Your task to perform on an android device: turn notification dots on Image 0: 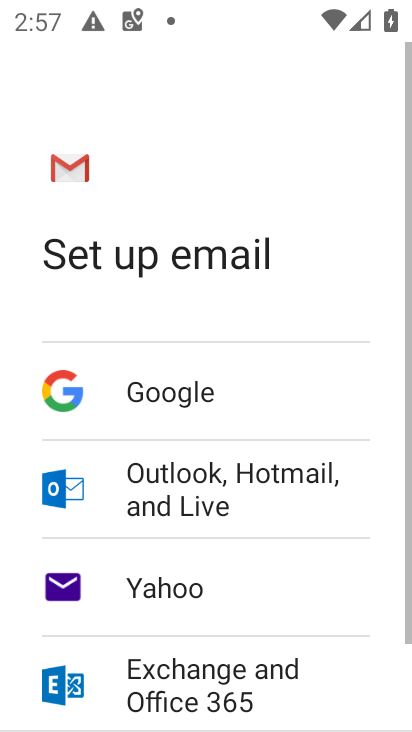
Step 0: press home button
Your task to perform on an android device: turn notification dots on Image 1: 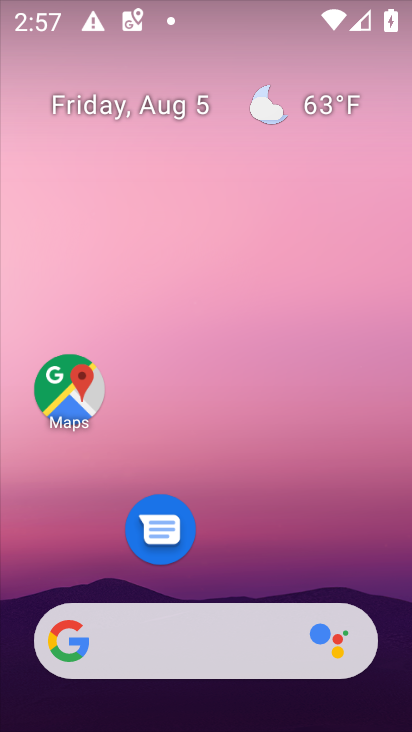
Step 1: drag from (167, 633) to (329, 39)
Your task to perform on an android device: turn notification dots on Image 2: 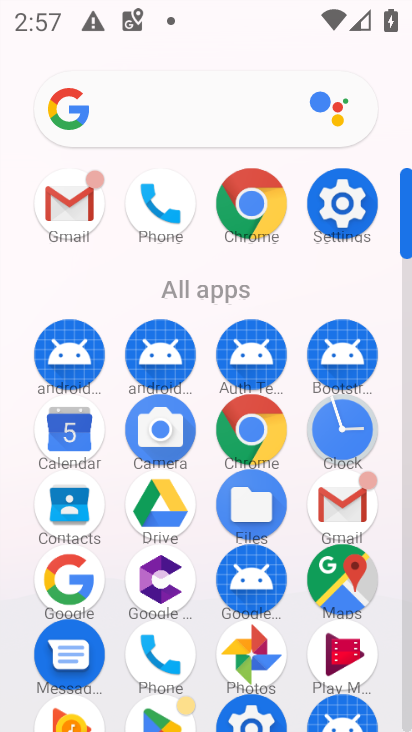
Step 2: click (361, 193)
Your task to perform on an android device: turn notification dots on Image 3: 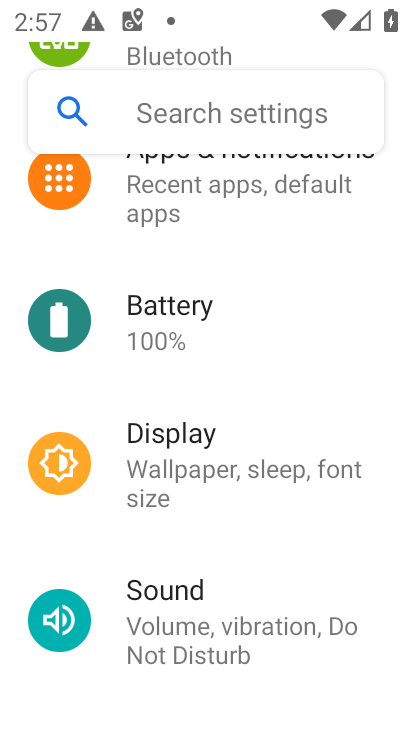
Step 3: drag from (283, 688) to (332, 157)
Your task to perform on an android device: turn notification dots on Image 4: 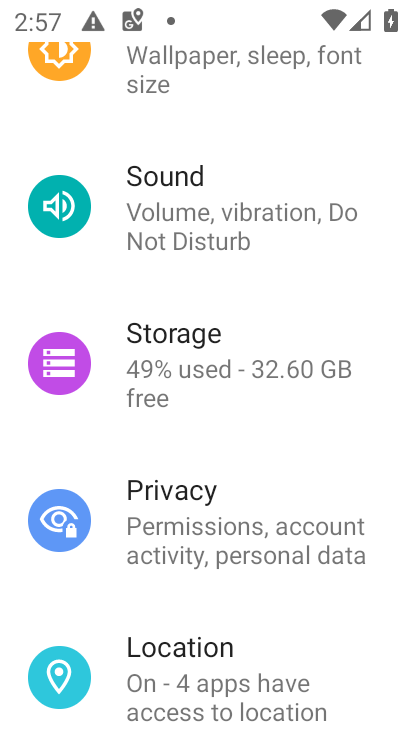
Step 4: drag from (316, 657) to (343, 52)
Your task to perform on an android device: turn notification dots on Image 5: 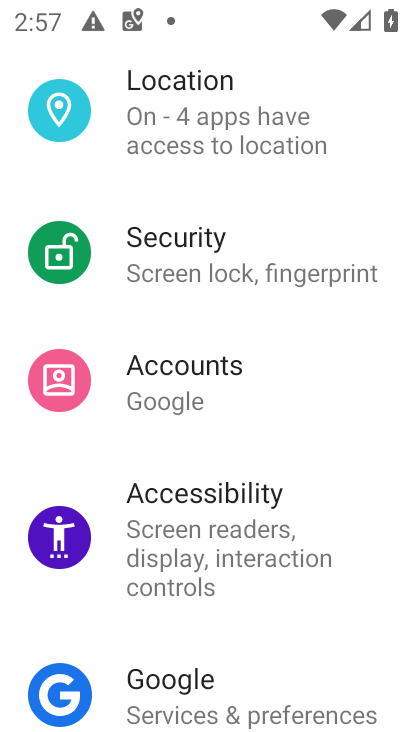
Step 5: drag from (242, 666) to (289, 2)
Your task to perform on an android device: turn notification dots on Image 6: 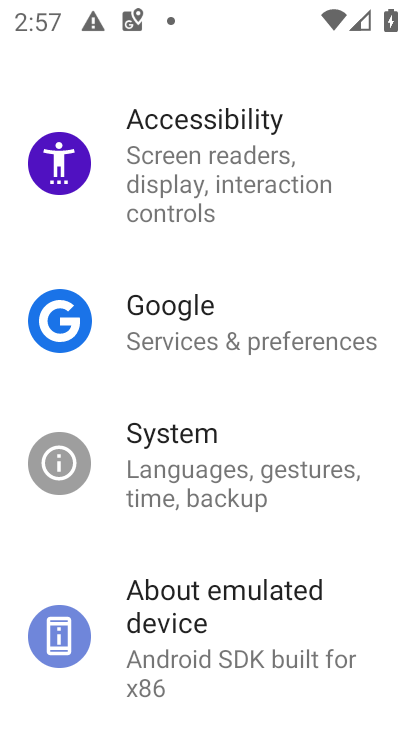
Step 6: drag from (256, 615) to (294, 8)
Your task to perform on an android device: turn notification dots on Image 7: 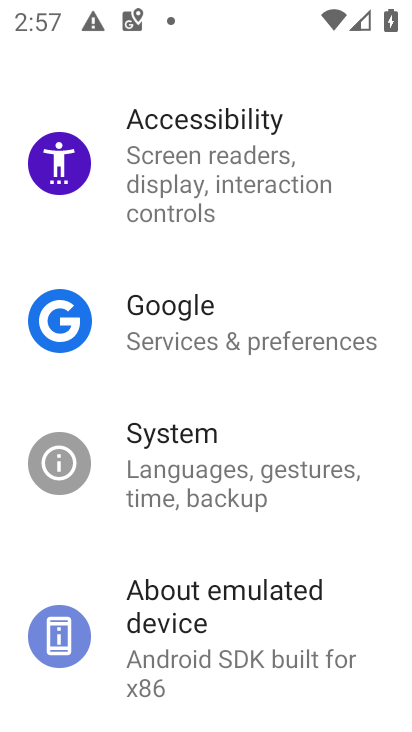
Step 7: drag from (359, 112) to (338, 687)
Your task to perform on an android device: turn notification dots on Image 8: 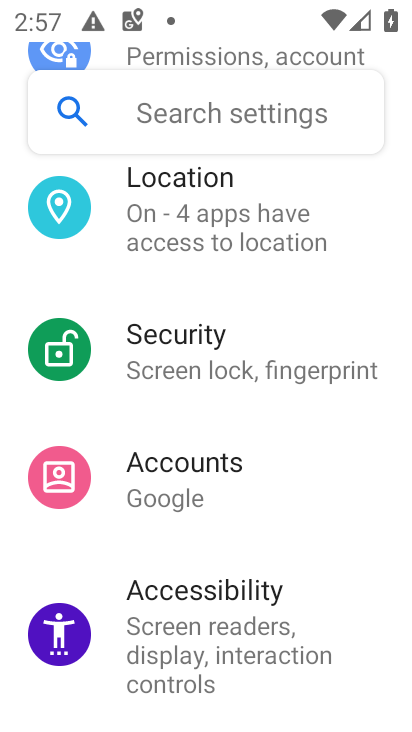
Step 8: drag from (320, 174) to (306, 700)
Your task to perform on an android device: turn notification dots on Image 9: 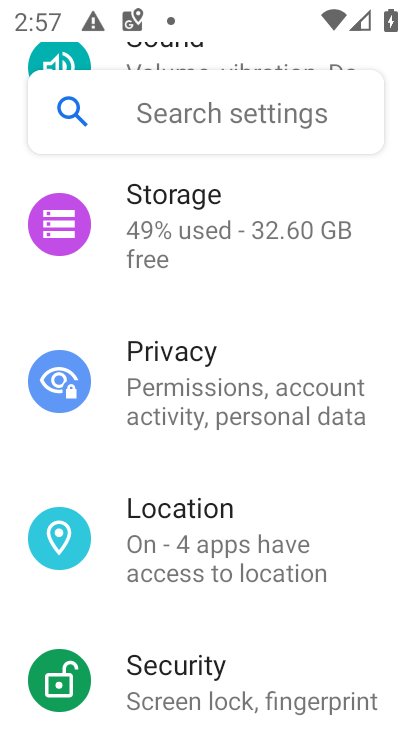
Step 9: drag from (320, 211) to (386, 706)
Your task to perform on an android device: turn notification dots on Image 10: 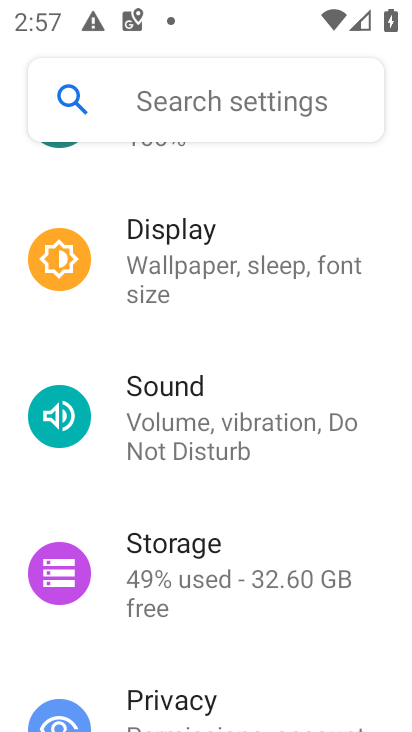
Step 10: drag from (308, 234) to (315, 676)
Your task to perform on an android device: turn notification dots on Image 11: 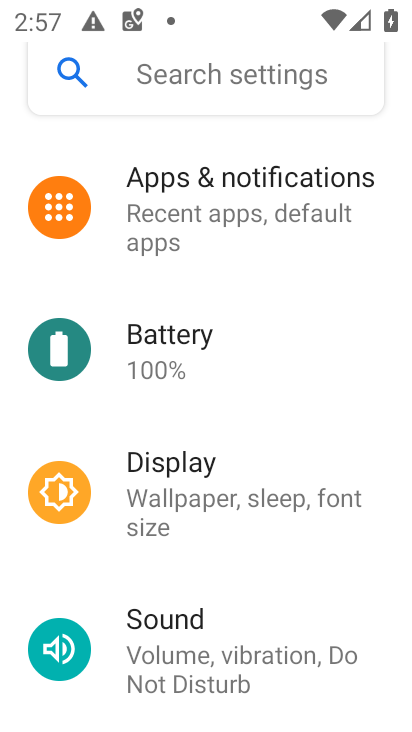
Step 11: click (277, 194)
Your task to perform on an android device: turn notification dots on Image 12: 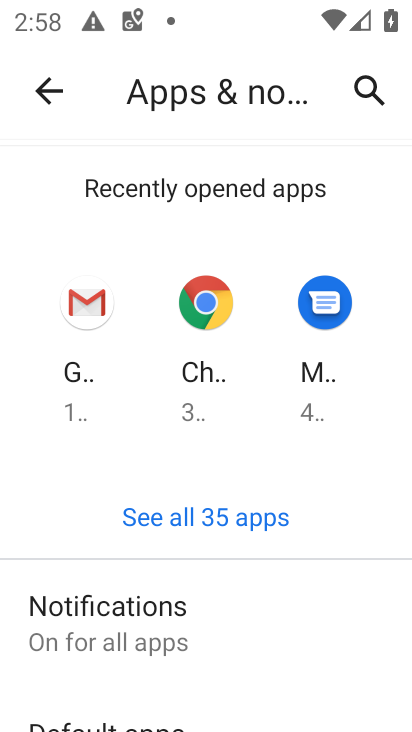
Step 12: click (223, 626)
Your task to perform on an android device: turn notification dots on Image 13: 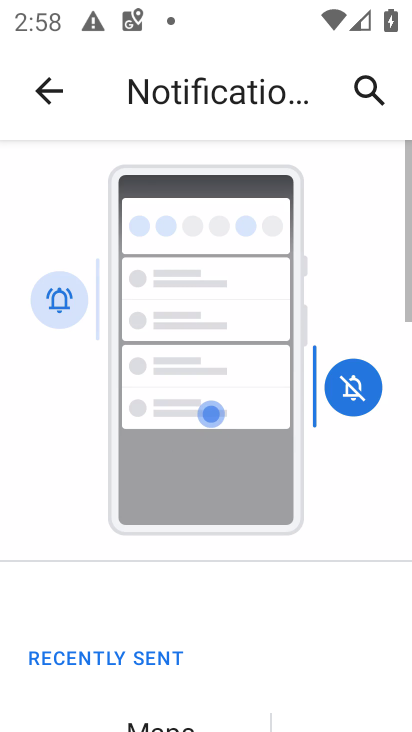
Step 13: drag from (235, 617) to (284, 49)
Your task to perform on an android device: turn notification dots on Image 14: 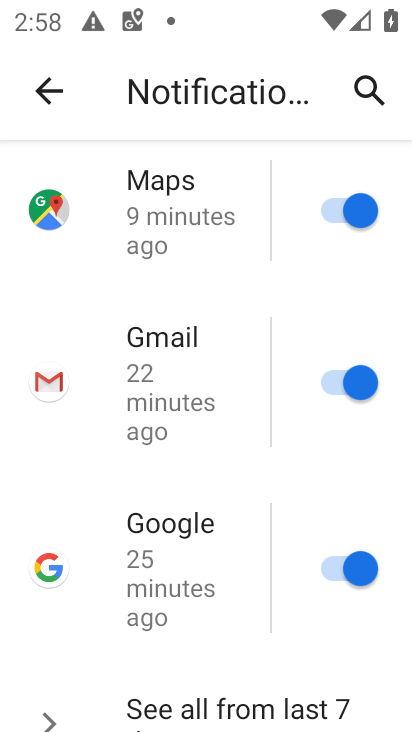
Step 14: drag from (238, 560) to (308, 17)
Your task to perform on an android device: turn notification dots on Image 15: 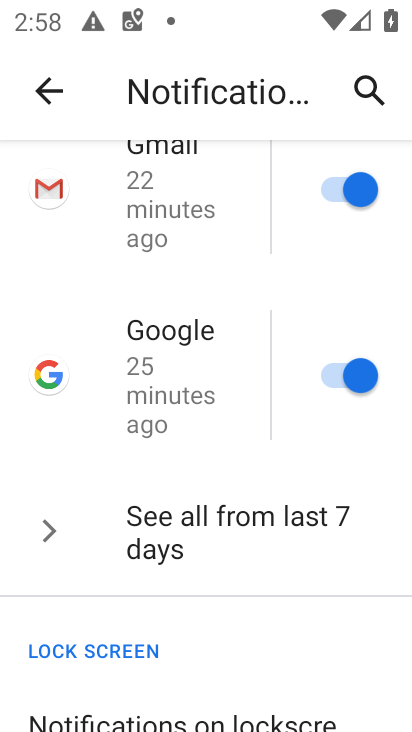
Step 15: drag from (302, 675) to (318, 79)
Your task to perform on an android device: turn notification dots on Image 16: 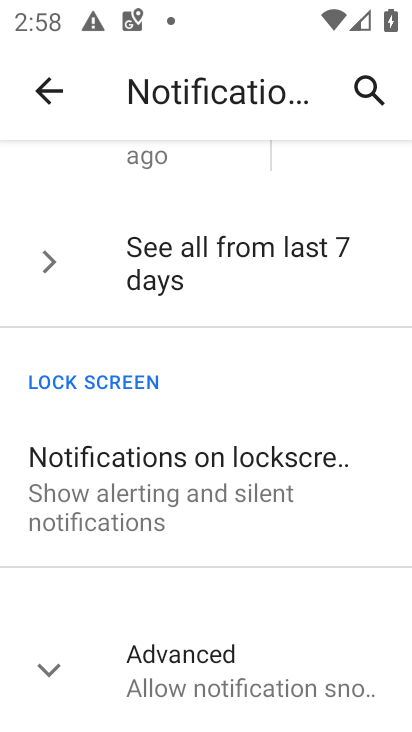
Step 16: click (311, 660)
Your task to perform on an android device: turn notification dots on Image 17: 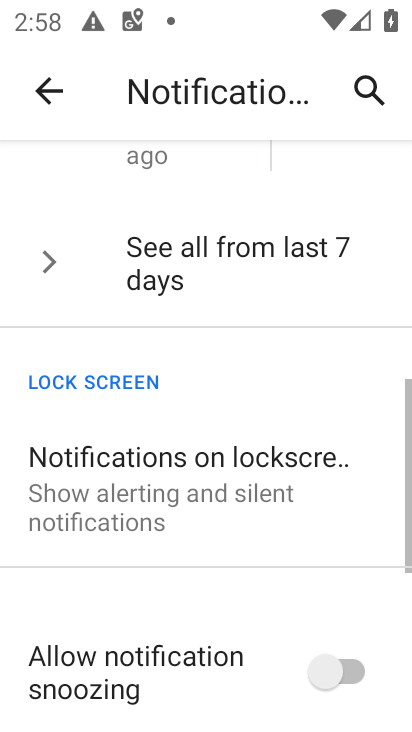
Step 17: task complete